Your task to perform on an android device: Show me recent news Image 0: 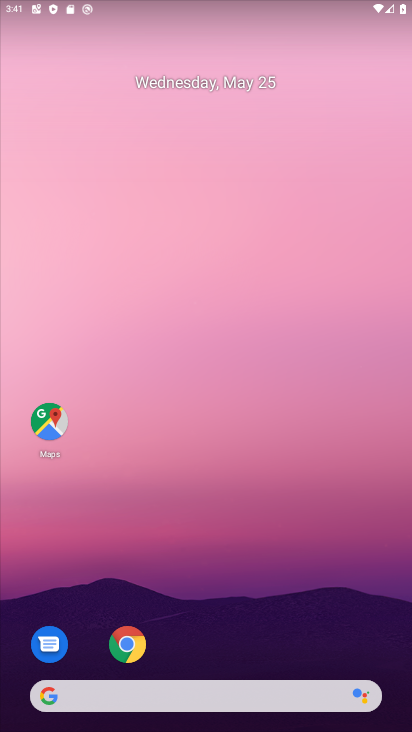
Step 0: click (90, 698)
Your task to perform on an android device: Show me recent news Image 1: 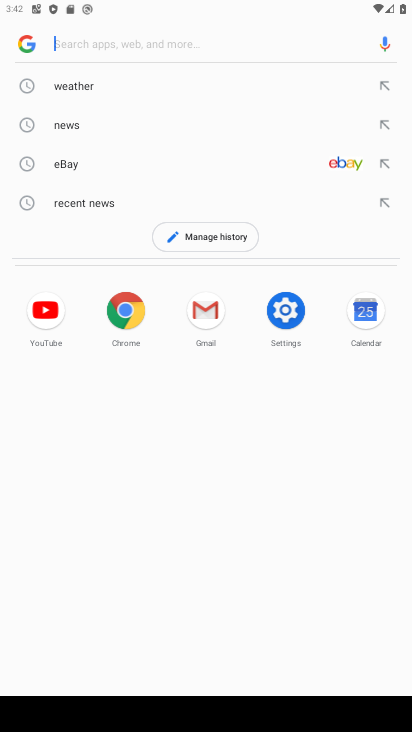
Step 1: click (80, 202)
Your task to perform on an android device: Show me recent news Image 2: 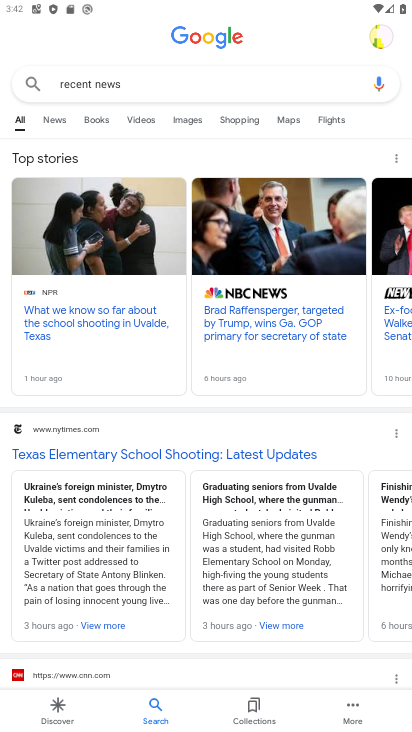
Step 2: click (61, 124)
Your task to perform on an android device: Show me recent news Image 3: 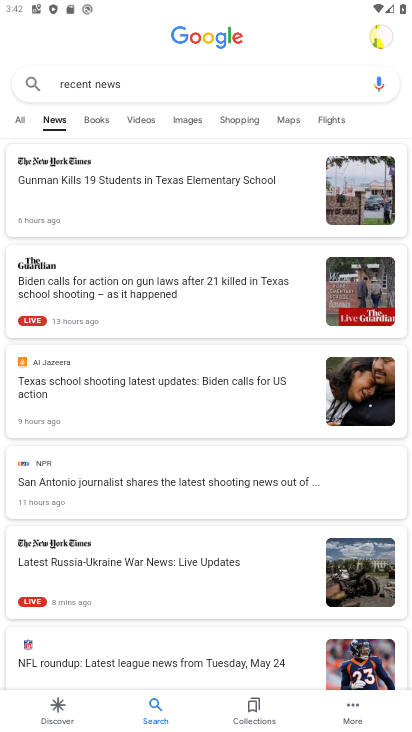
Step 3: click (110, 580)
Your task to perform on an android device: Show me recent news Image 4: 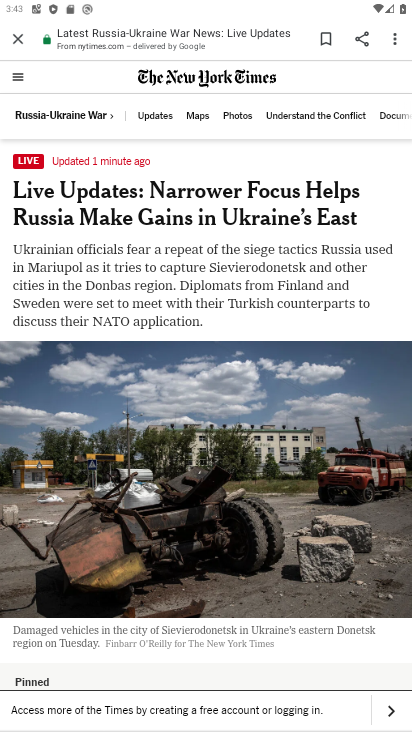
Step 4: task complete